Your task to perform on an android device: open wifi settings Image 0: 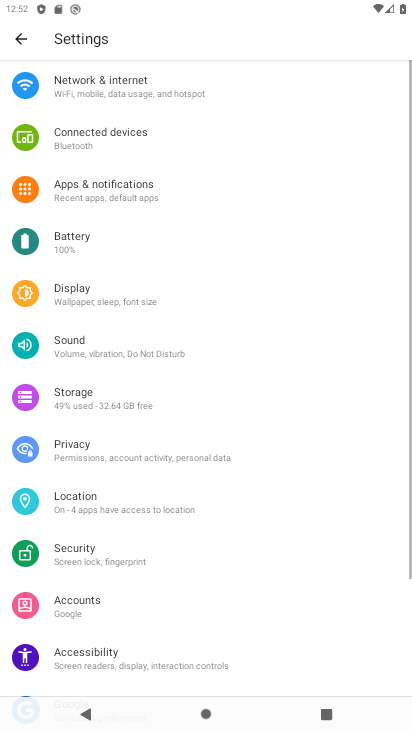
Step 0: press home button
Your task to perform on an android device: open wifi settings Image 1: 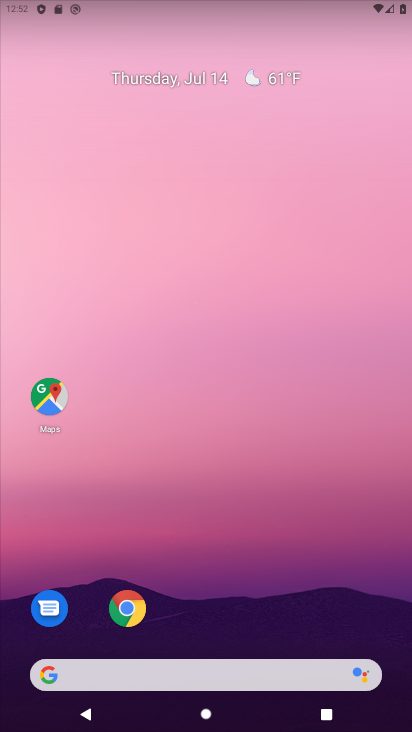
Step 1: drag from (343, 614) to (346, 192)
Your task to perform on an android device: open wifi settings Image 2: 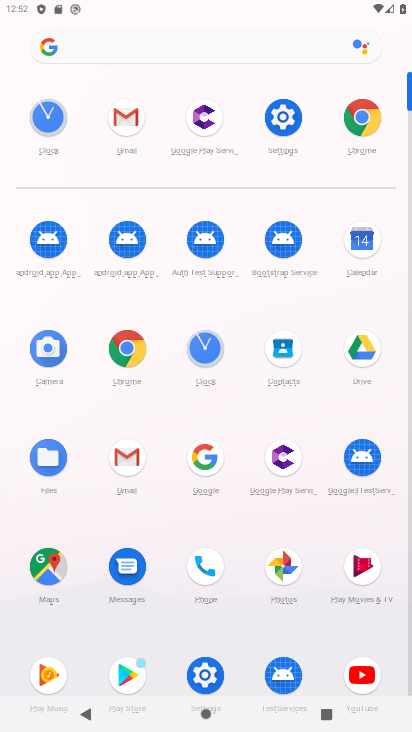
Step 2: click (290, 123)
Your task to perform on an android device: open wifi settings Image 3: 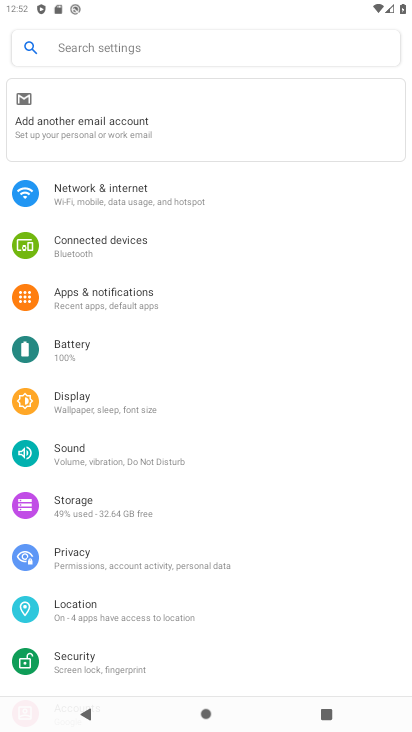
Step 3: drag from (337, 460) to (343, 378)
Your task to perform on an android device: open wifi settings Image 4: 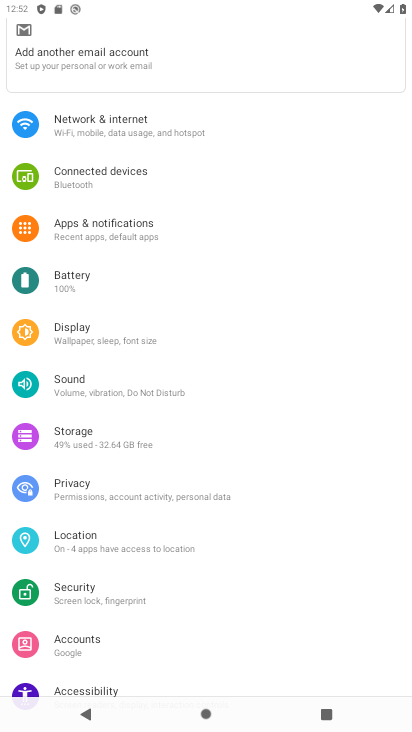
Step 4: drag from (329, 505) to (336, 446)
Your task to perform on an android device: open wifi settings Image 5: 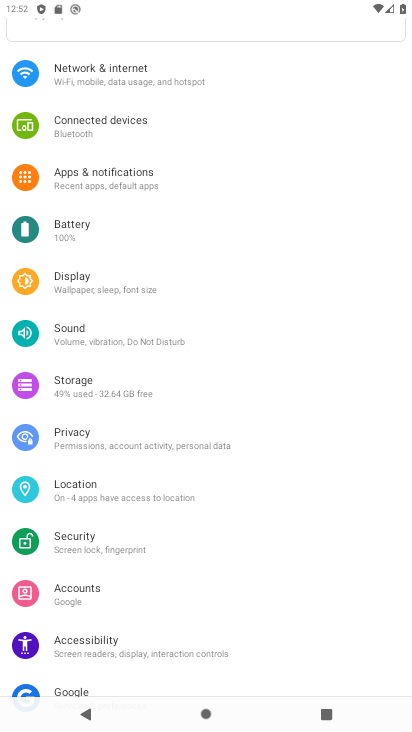
Step 5: drag from (323, 546) to (324, 465)
Your task to perform on an android device: open wifi settings Image 6: 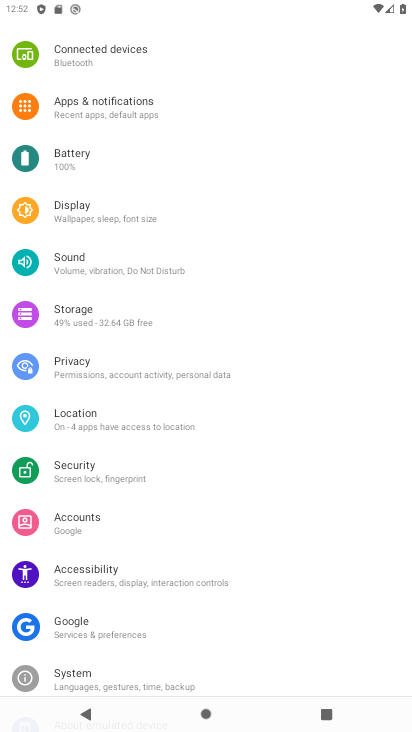
Step 6: drag from (323, 537) to (327, 483)
Your task to perform on an android device: open wifi settings Image 7: 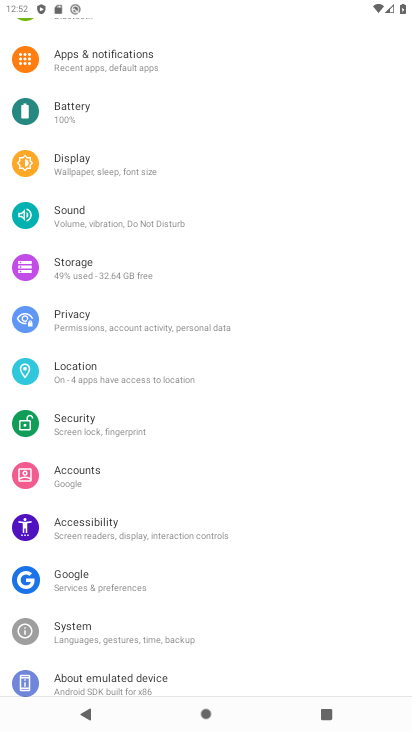
Step 7: drag from (313, 535) to (312, 462)
Your task to perform on an android device: open wifi settings Image 8: 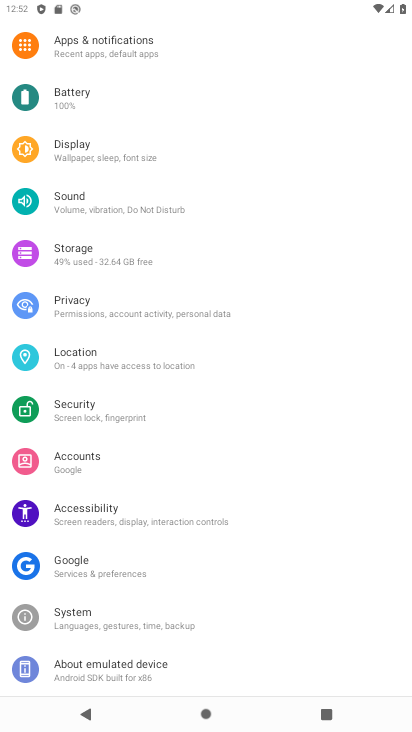
Step 8: drag from (312, 408) to (306, 449)
Your task to perform on an android device: open wifi settings Image 9: 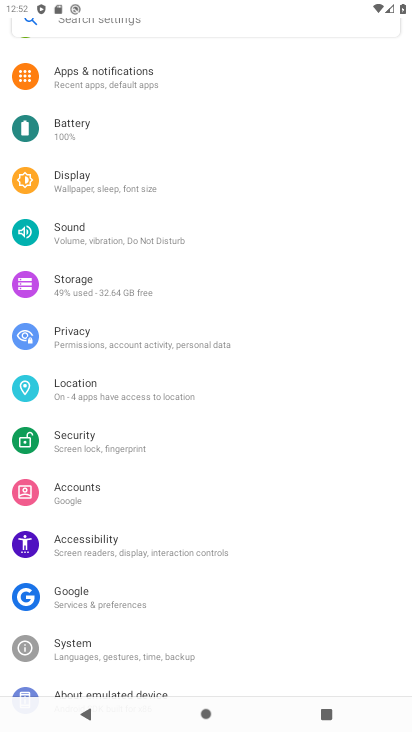
Step 9: drag from (300, 389) to (298, 449)
Your task to perform on an android device: open wifi settings Image 10: 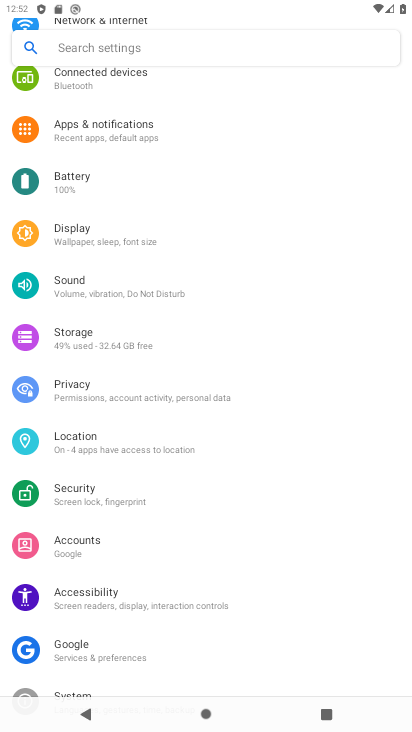
Step 10: drag from (301, 379) to (300, 440)
Your task to perform on an android device: open wifi settings Image 11: 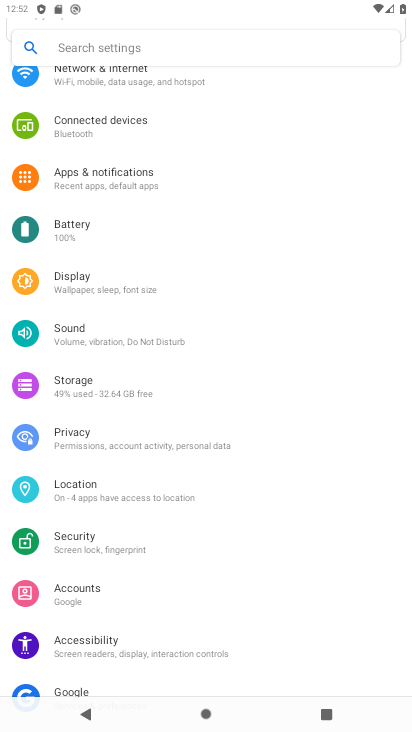
Step 11: drag from (311, 318) to (313, 379)
Your task to perform on an android device: open wifi settings Image 12: 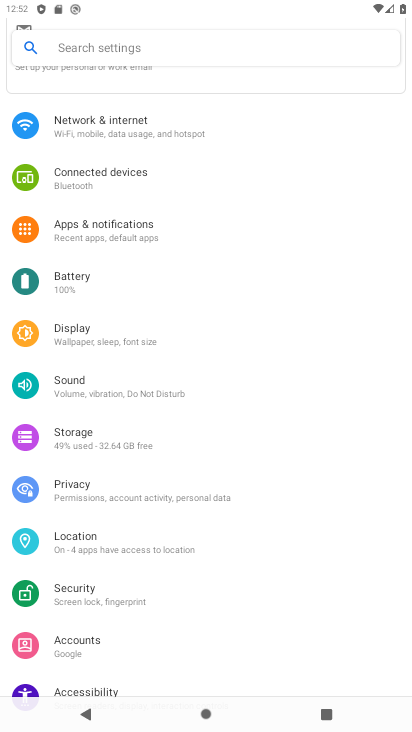
Step 12: drag from (302, 307) to (302, 372)
Your task to perform on an android device: open wifi settings Image 13: 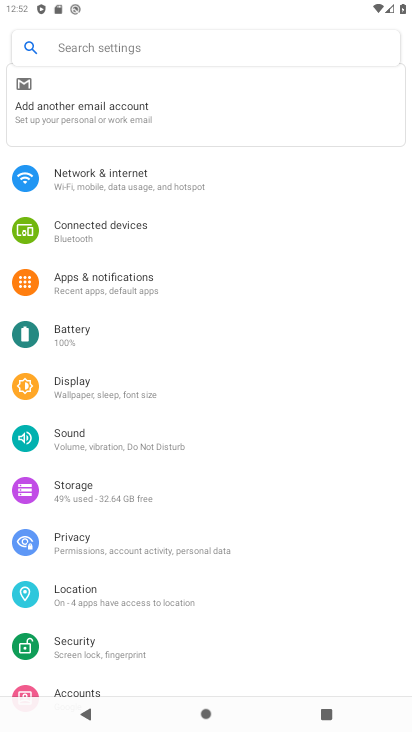
Step 13: drag from (294, 297) to (284, 433)
Your task to perform on an android device: open wifi settings Image 14: 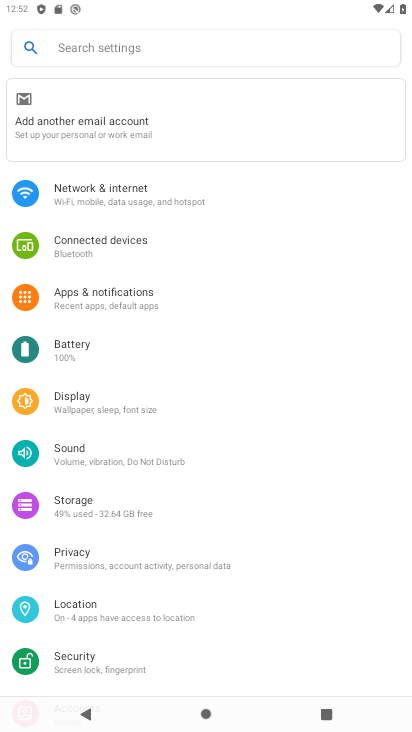
Step 14: click (171, 208)
Your task to perform on an android device: open wifi settings Image 15: 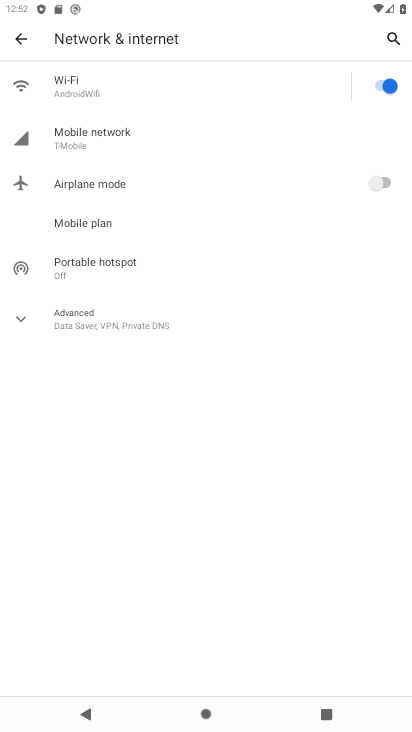
Step 15: click (144, 90)
Your task to perform on an android device: open wifi settings Image 16: 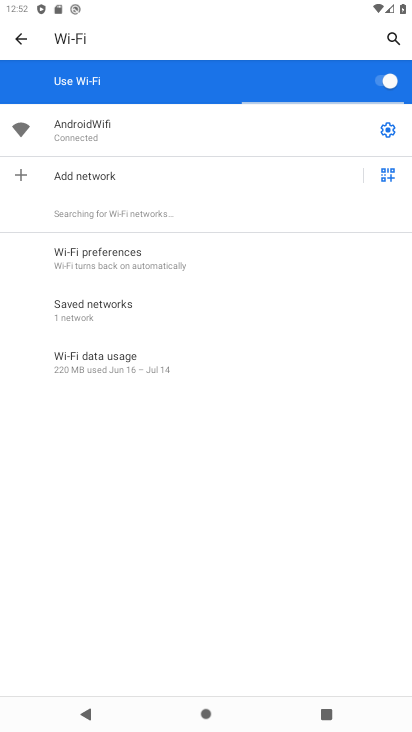
Step 16: task complete